Your task to perform on an android device: open wifi settings Image 0: 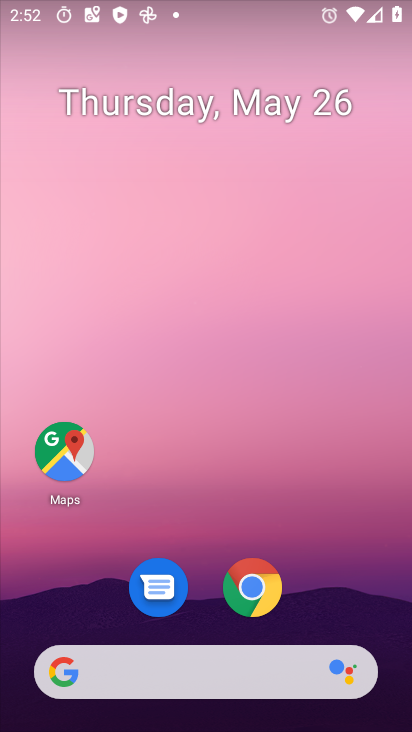
Step 0: drag from (379, 607) to (370, 167)
Your task to perform on an android device: open wifi settings Image 1: 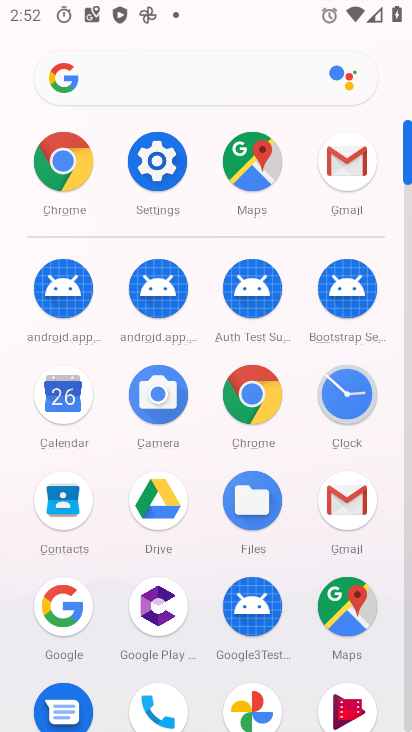
Step 1: click (160, 161)
Your task to perform on an android device: open wifi settings Image 2: 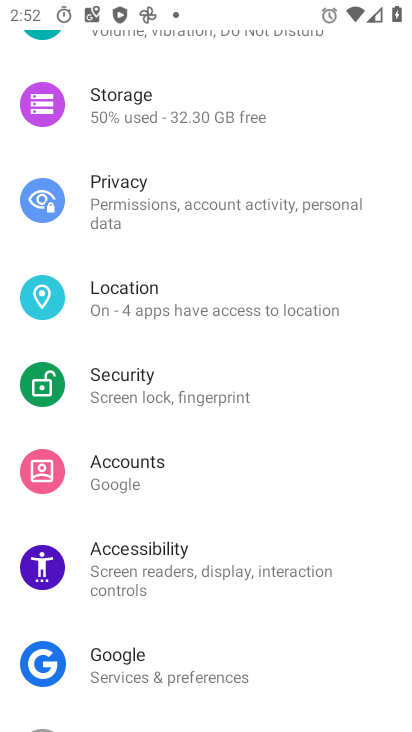
Step 2: drag from (338, 468) to (333, 370)
Your task to perform on an android device: open wifi settings Image 3: 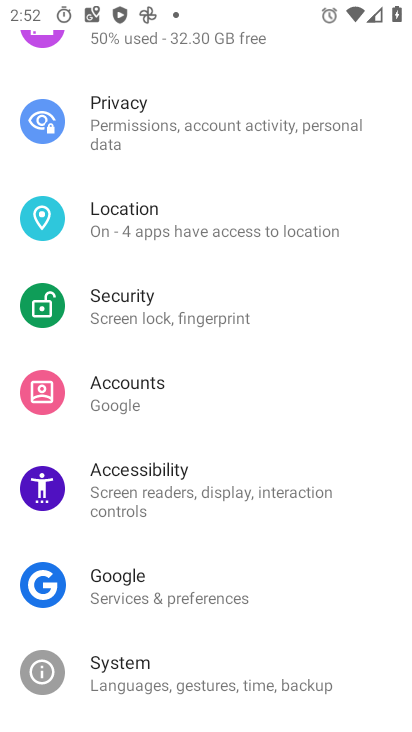
Step 3: drag from (338, 492) to (357, 342)
Your task to perform on an android device: open wifi settings Image 4: 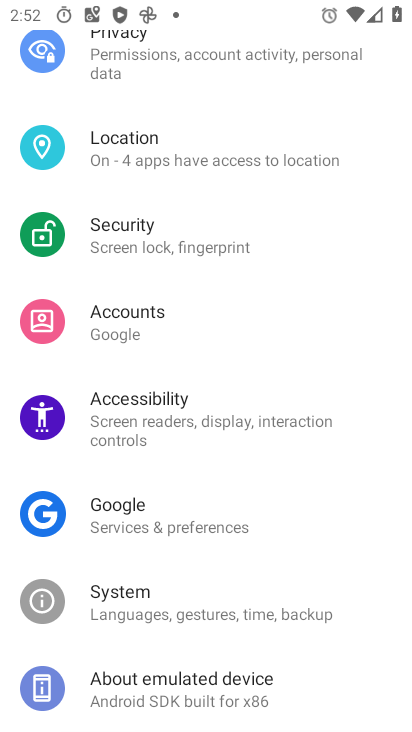
Step 4: drag from (362, 302) to (365, 369)
Your task to perform on an android device: open wifi settings Image 5: 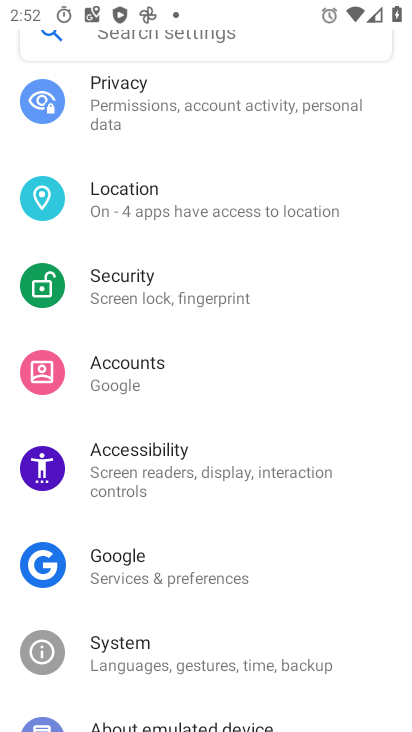
Step 5: drag from (369, 260) to (369, 324)
Your task to perform on an android device: open wifi settings Image 6: 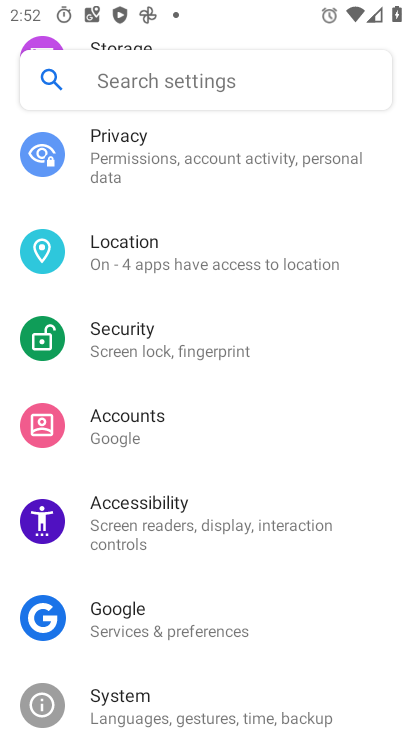
Step 6: drag from (351, 222) to (329, 369)
Your task to perform on an android device: open wifi settings Image 7: 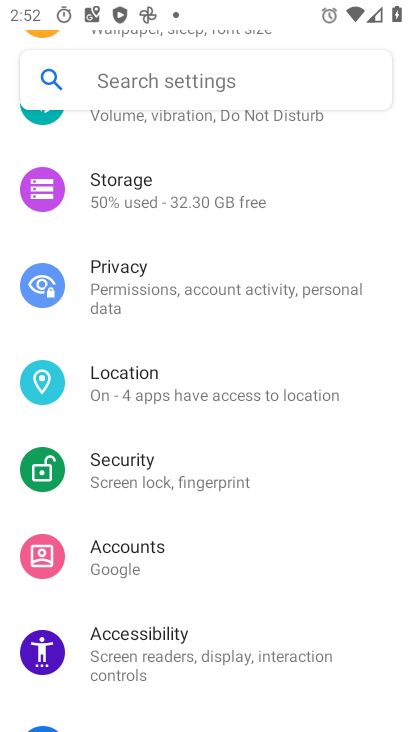
Step 7: drag from (344, 230) to (338, 367)
Your task to perform on an android device: open wifi settings Image 8: 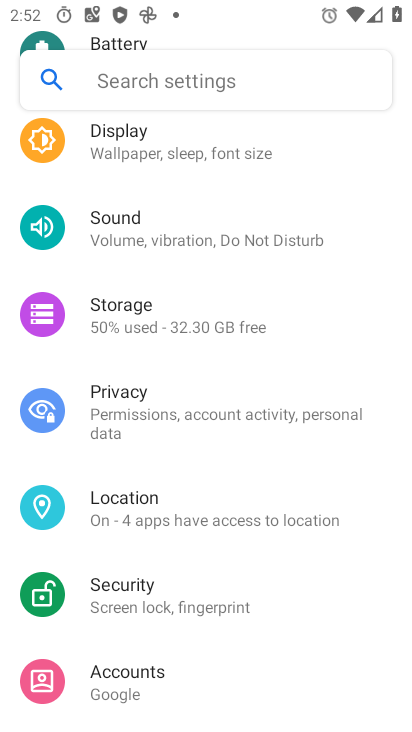
Step 8: drag from (349, 212) to (343, 332)
Your task to perform on an android device: open wifi settings Image 9: 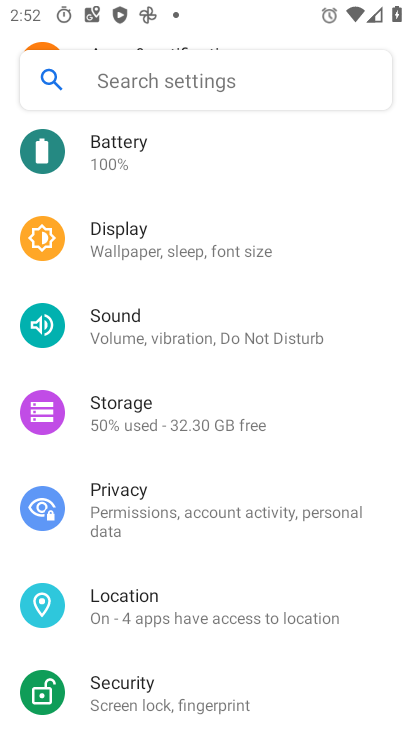
Step 9: drag from (337, 204) to (335, 310)
Your task to perform on an android device: open wifi settings Image 10: 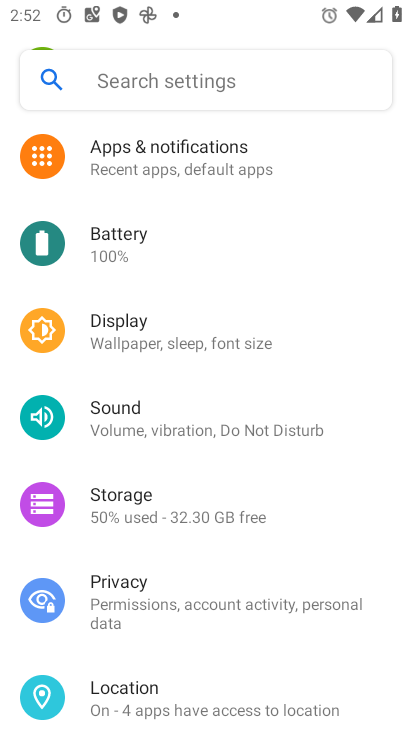
Step 10: drag from (342, 186) to (335, 297)
Your task to perform on an android device: open wifi settings Image 11: 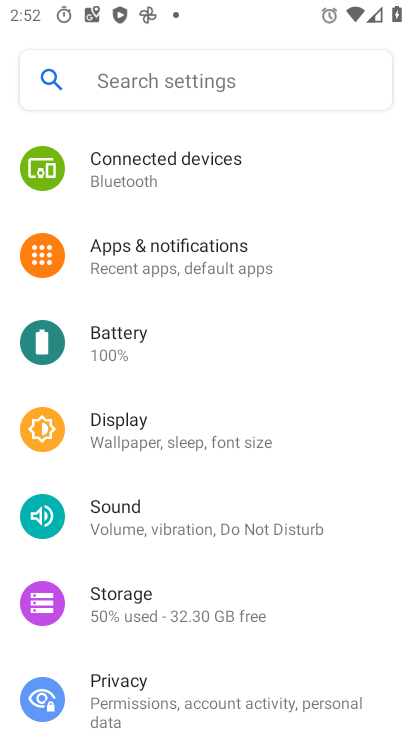
Step 11: drag from (349, 167) to (345, 270)
Your task to perform on an android device: open wifi settings Image 12: 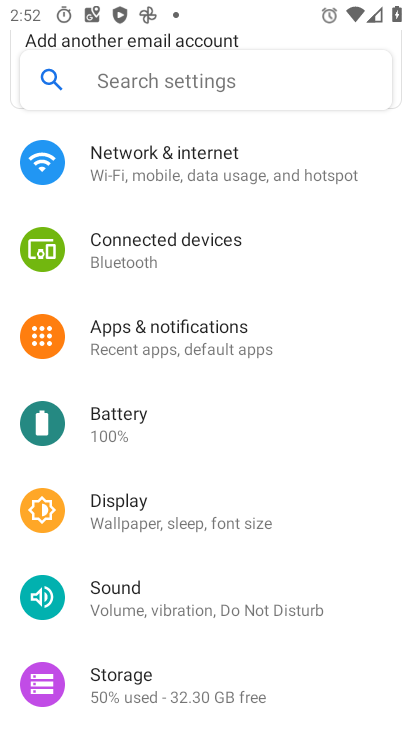
Step 12: drag from (345, 144) to (348, 272)
Your task to perform on an android device: open wifi settings Image 13: 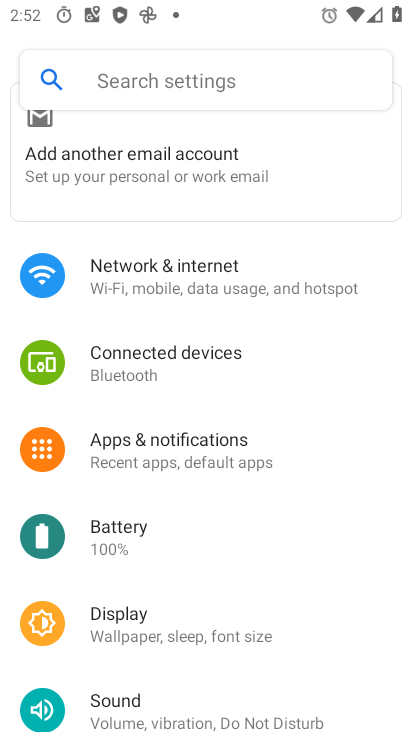
Step 13: click (305, 285)
Your task to perform on an android device: open wifi settings Image 14: 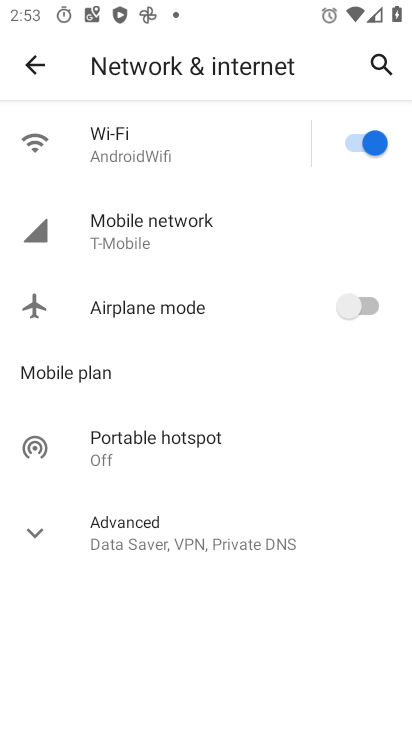
Step 14: click (135, 146)
Your task to perform on an android device: open wifi settings Image 15: 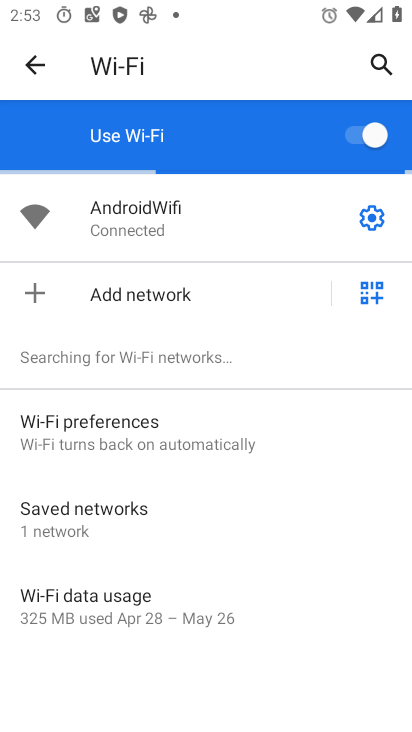
Step 15: task complete